Your task to perform on an android device: turn pop-ups on in chrome Image 0: 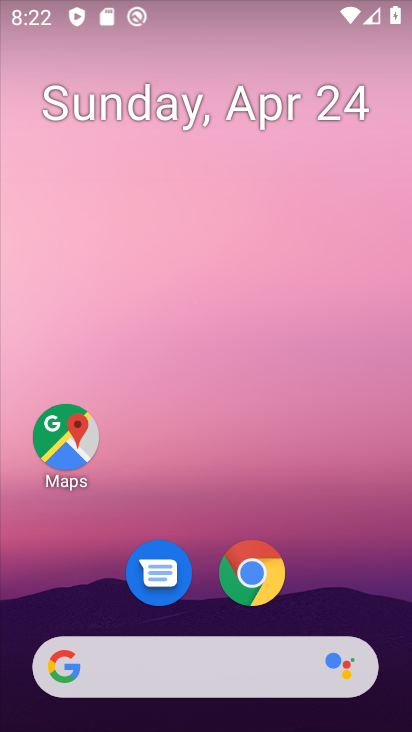
Step 0: click (244, 577)
Your task to perform on an android device: turn pop-ups on in chrome Image 1: 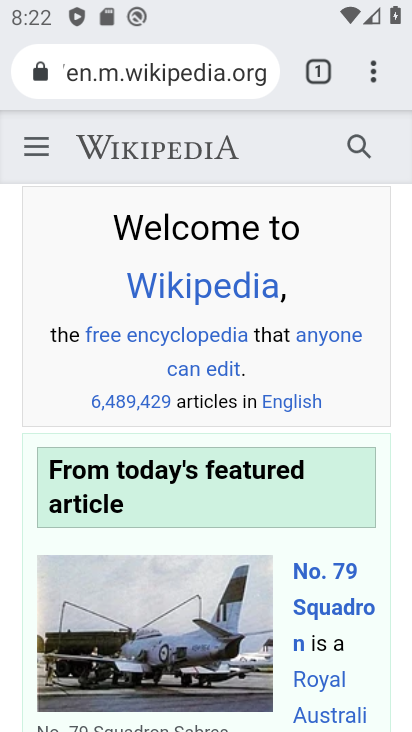
Step 1: click (369, 76)
Your task to perform on an android device: turn pop-ups on in chrome Image 2: 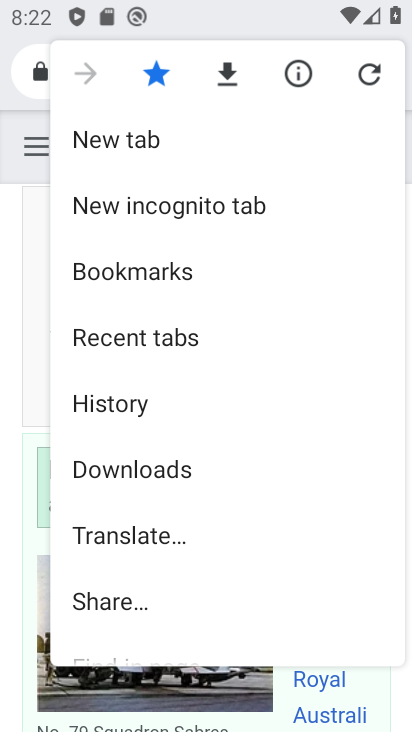
Step 2: drag from (204, 575) to (175, 43)
Your task to perform on an android device: turn pop-ups on in chrome Image 3: 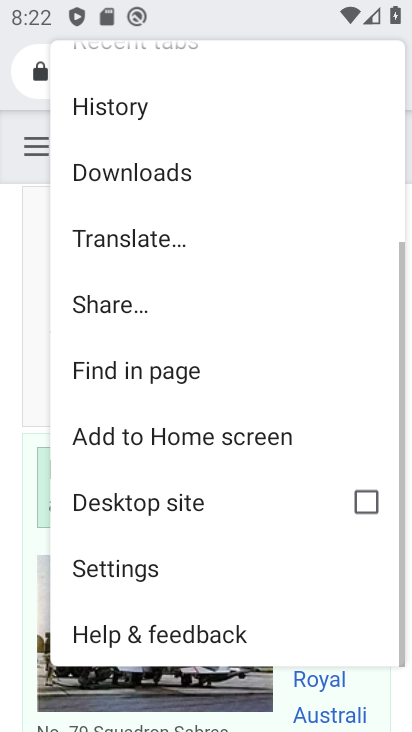
Step 3: click (135, 567)
Your task to perform on an android device: turn pop-ups on in chrome Image 4: 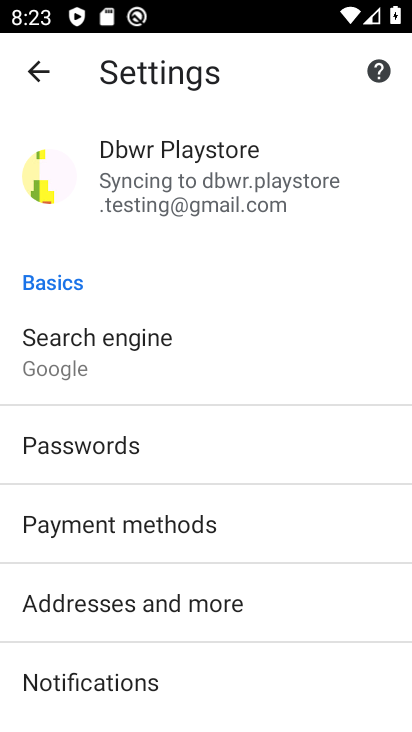
Step 4: drag from (237, 548) to (212, 237)
Your task to perform on an android device: turn pop-ups on in chrome Image 5: 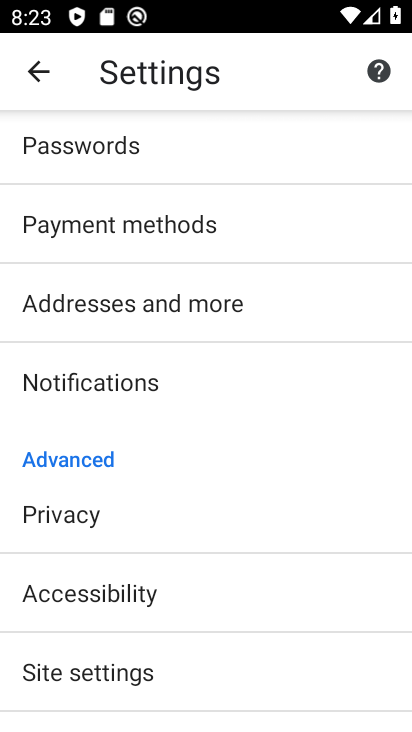
Step 5: drag from (196, 577) to (228, 234)
Your task to perform on an android device: turn pop-ups on in chrome Image 6: 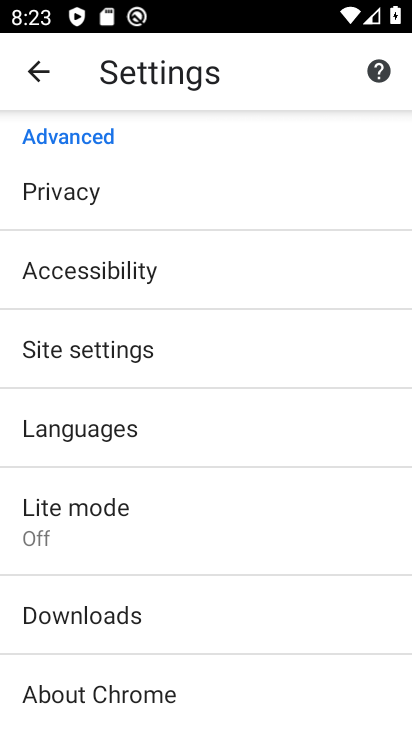
Step 6: click (75, 347)
Your task to perform on an android device: turn pop-ups on in chrome Image 7: 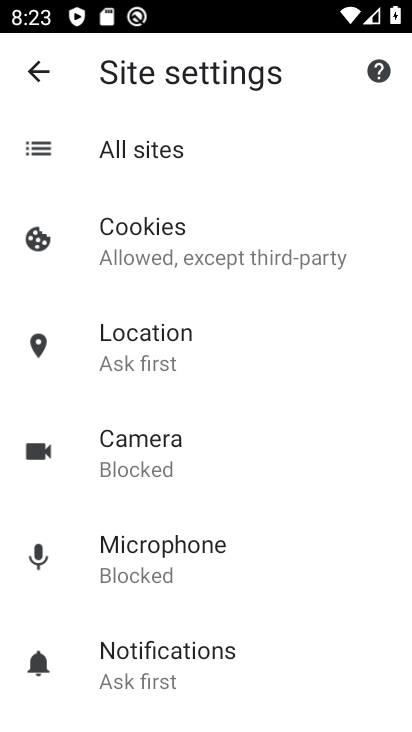
Step 7: drag from (220, 611) to (222, 269)
Your task to perform on an android device: turn pop-ups on in chrome Image 8: 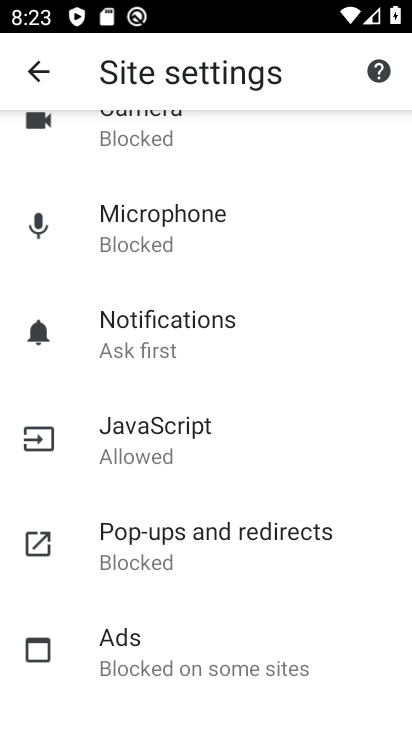
Step 8: click (157, 526)
Your task to perform on an android device: turn pop-ups on in chrome Image 9: 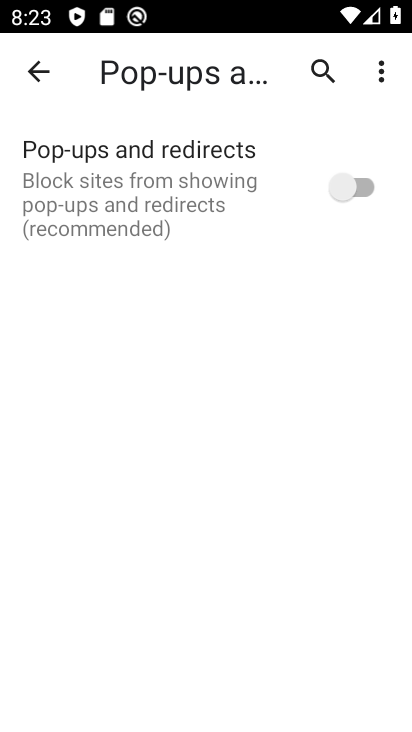
Step 9: click (338, 188)
Your task to perform on an android device: turn pop-ups on in chrome Image 10: 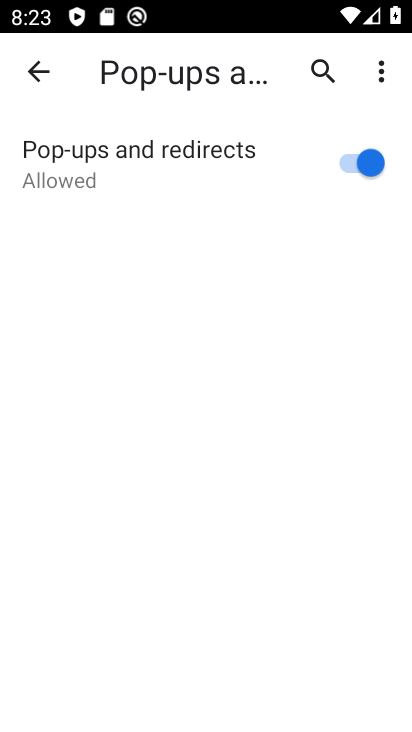
Step 10: task complete